Your task to perform on an android device: Toggle the flashlight Image 0: 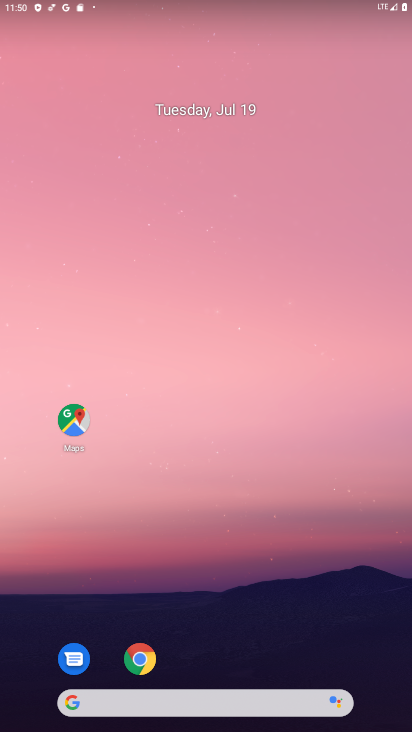
Step 0: drag from (339, 626) to (307, 169)
Your task to perform on an android device: Toggle the flashlight Image 1: 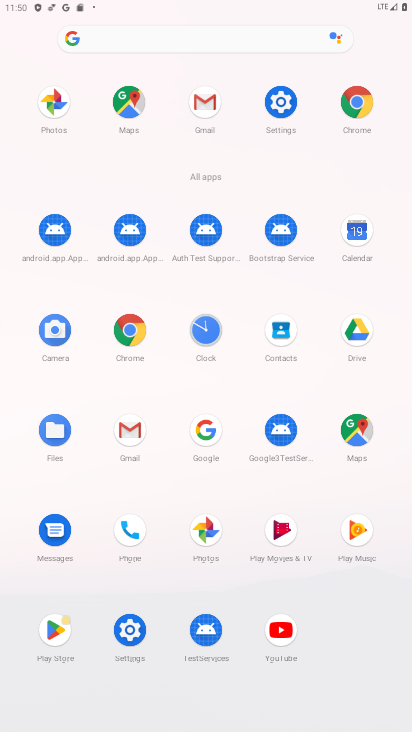
Step 1: click (272, 103)
Your task to perform on an android device: Toggle the flashlight Image 2: 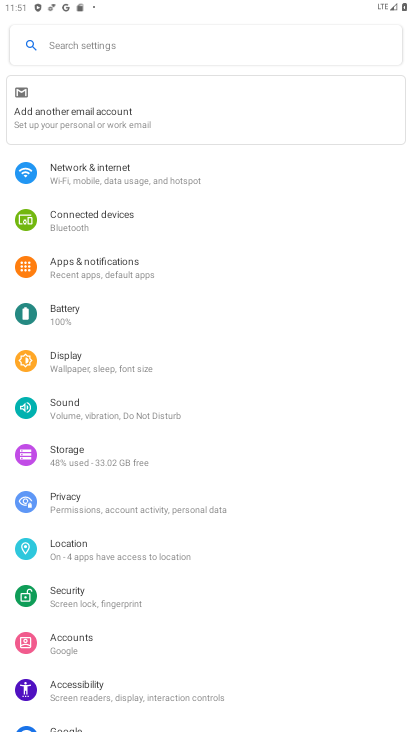
Step 2: click (91, 371)
Your task to perform on an android device: Toggle the flashlight Image 3: 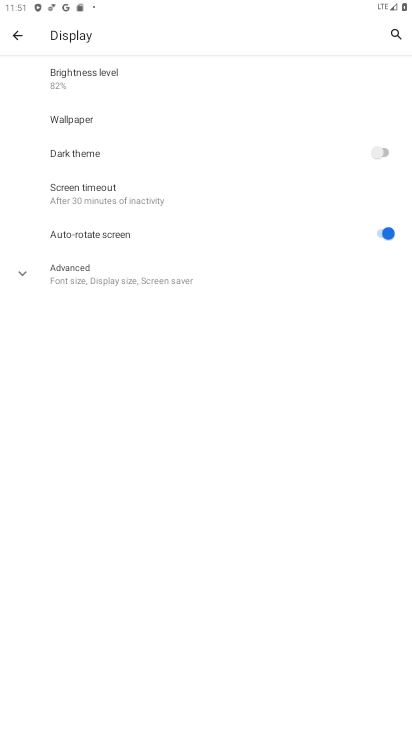
Step 3: task complete